Your task to perform on an android device: install app "Flipkart Online Shopping App" Image 0: 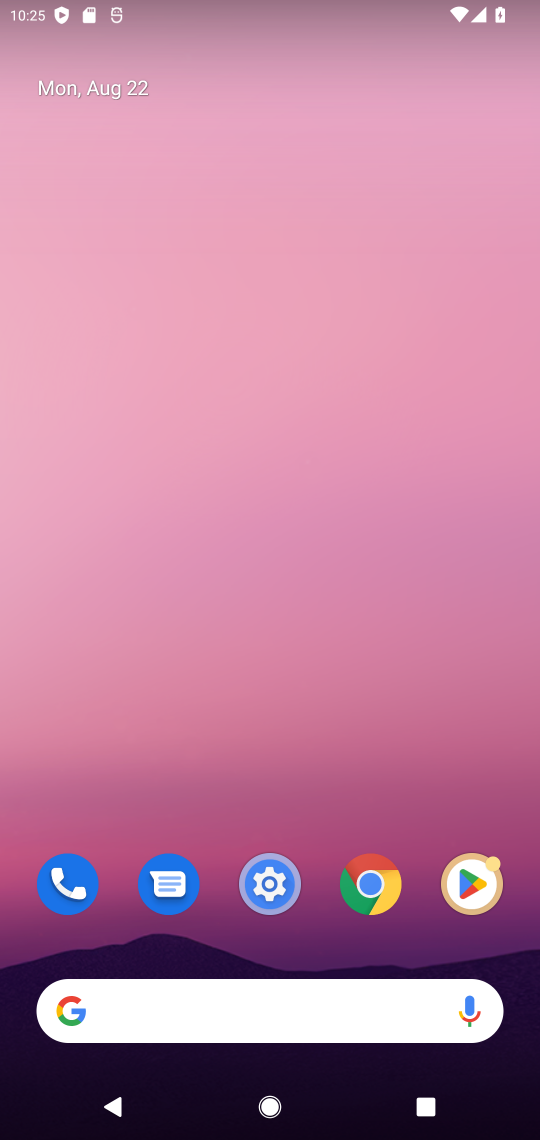
Step 0: drag from (343, 828) to (450, 0)
Your task to perform on an android device: install app "Flipkart Online Shopping App" Image 1: 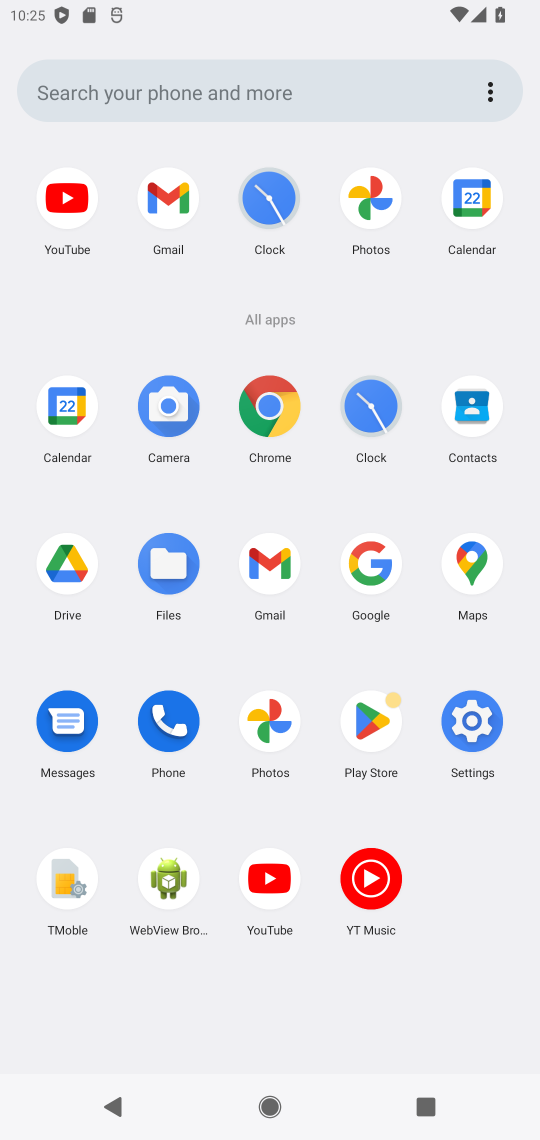
Step 1: click (375, 714)
Your task to perform on an android device: install app "Flipkart Online Shopping App" Image 2: 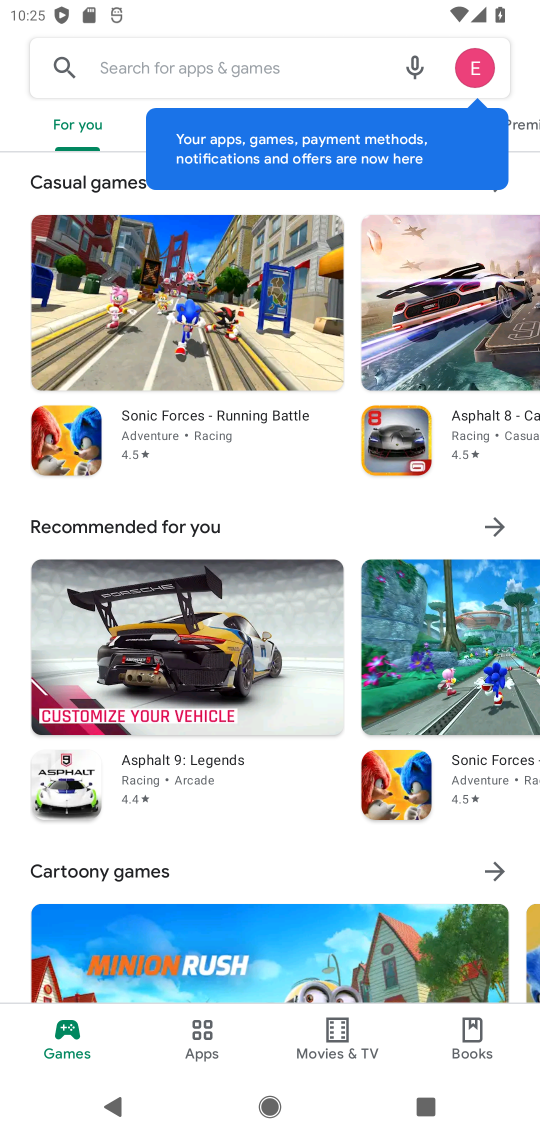
Step 2: click (196, 51)
Your task to perform on an android device: install app "Flipkart Online Shopping App" Image 3: 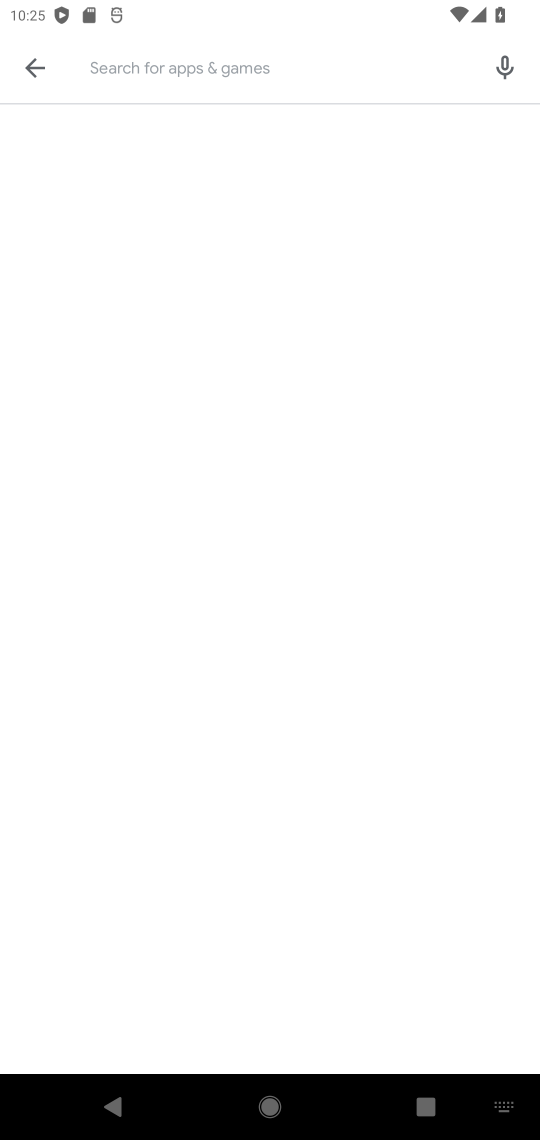
Step 3: type "Flipkart Online Shopping App"
Your task to perform on an android device: install app "Flipkart Online Shopping App" Image 4: 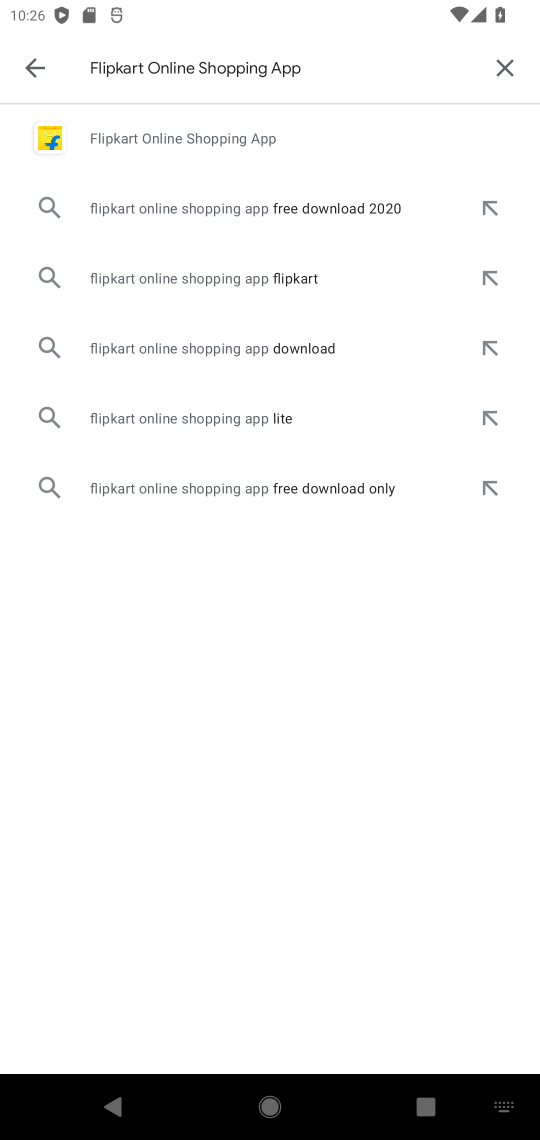
Step 4: click (120, 130)
Your task to perform on an android device: install app "Flipkart Online Shopping App" Image 5: 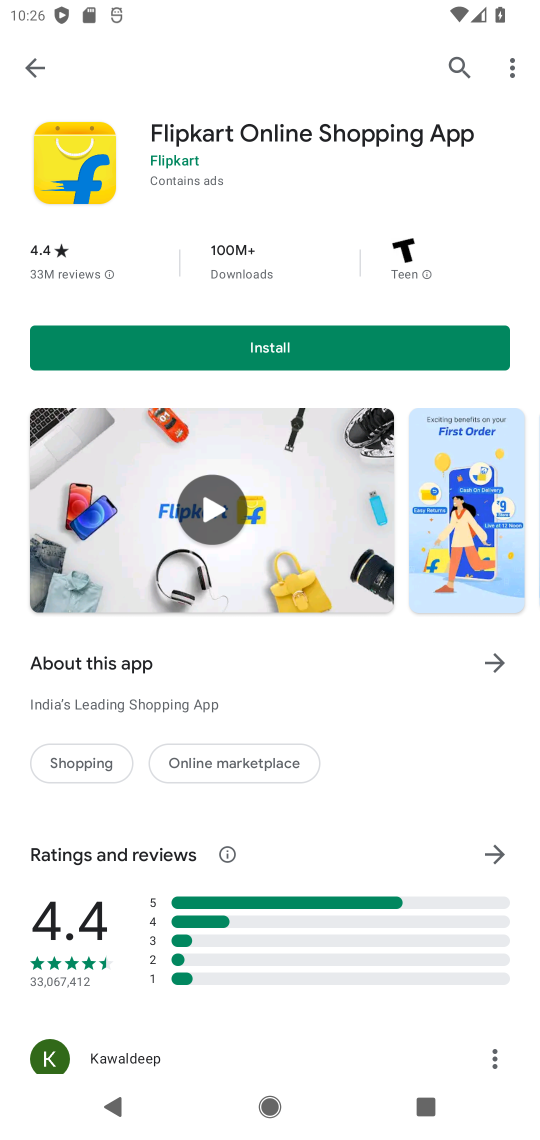
Step 5: click (279, 342)
Your task to perform on an android device: install app "Flipkart Online Shopping App" Image 6: 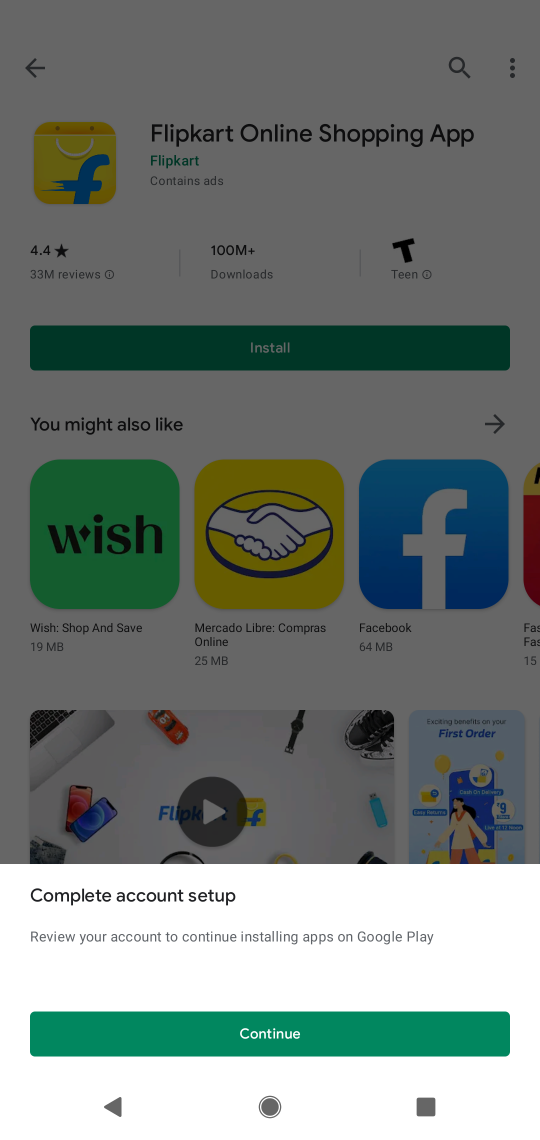
Step 6: click (255, 1026)
Your task to perform on an android device: install app "Flipkart Online Shopping App" Image 7: 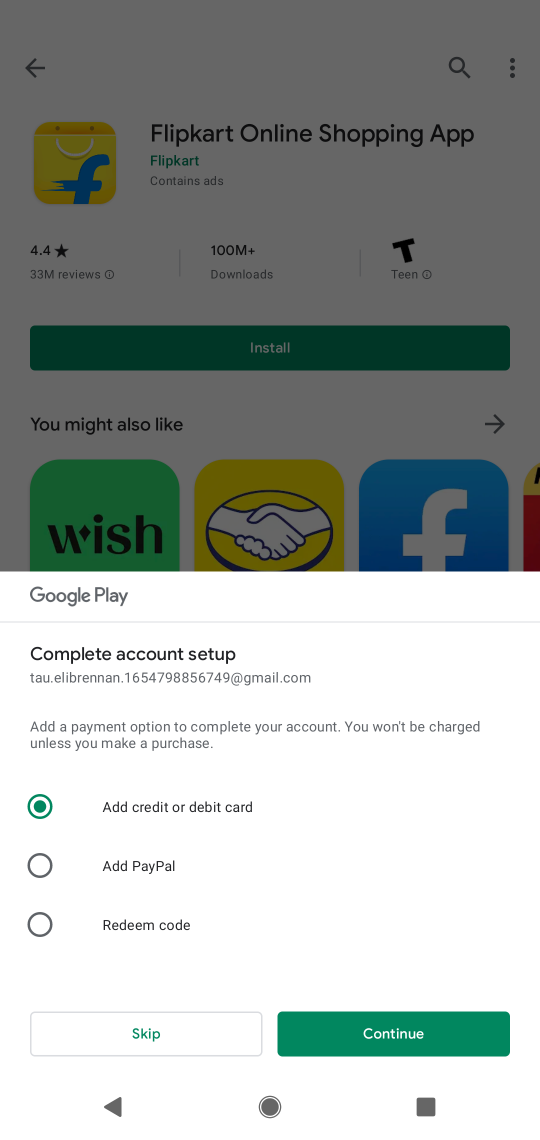
Step 7: click (156, 1032)
Your task to perform on an android device: install app "Flipkart Online Shopping App" Image 8: 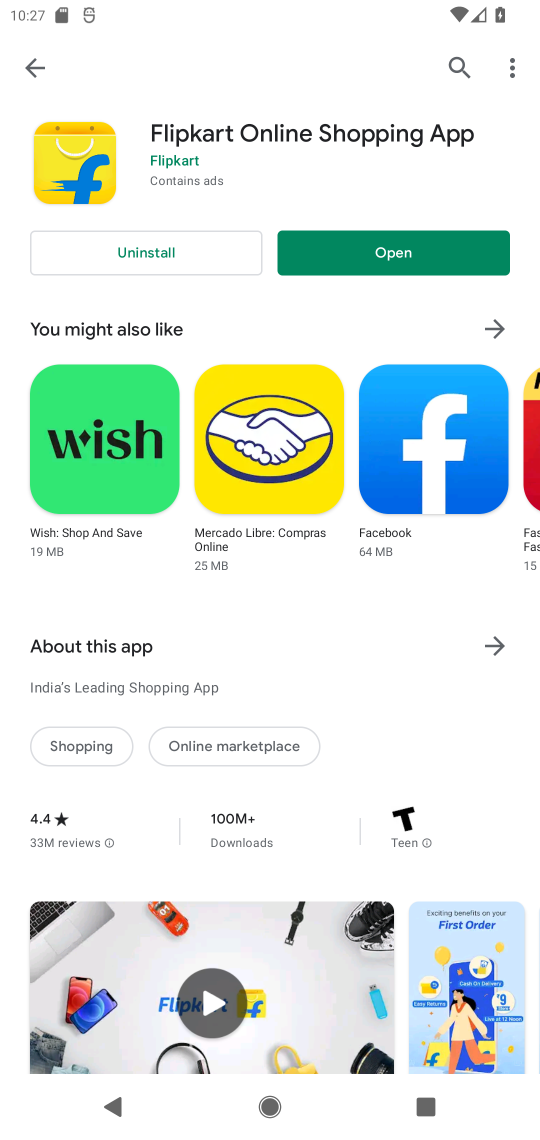
Step 8: click (379, 252)
Your task to perform on an android device: install app "Flipkart Online Shopping App" Image 9: 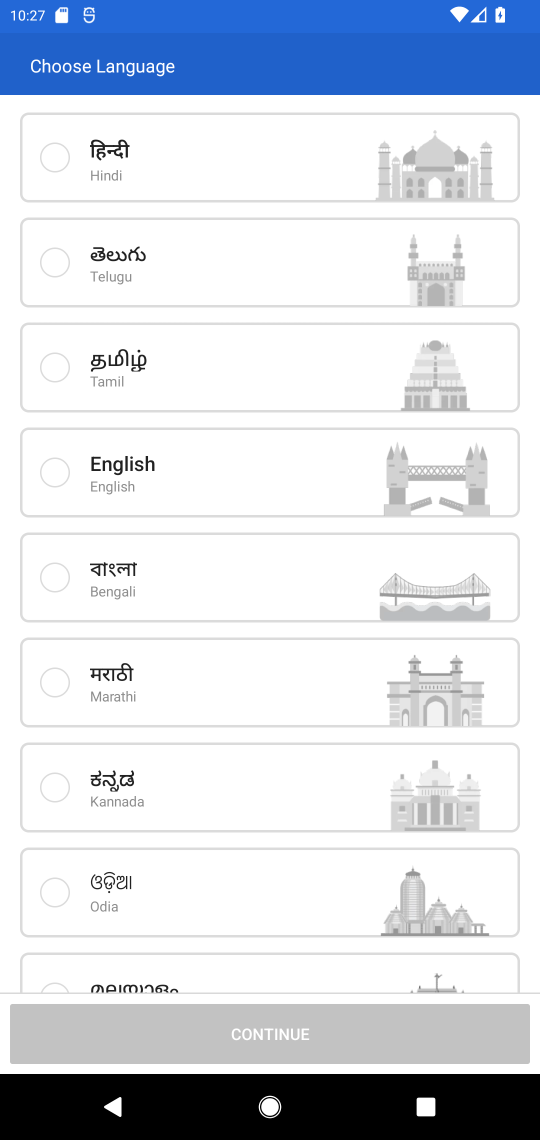
Step 9: click (50, 473)
Your task to perform on an android device: install app "Flipkart Online Shopping App" Image 10: 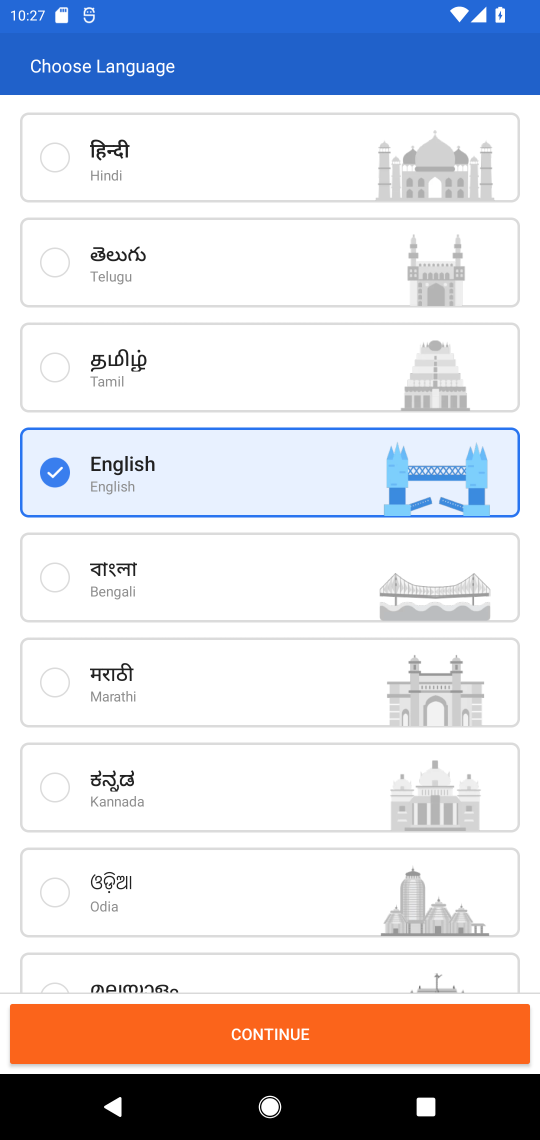
Step 10: click (272, 1026)
Your task to perform on an android device: install app "Flipkart Online Shopping App" Image 11: 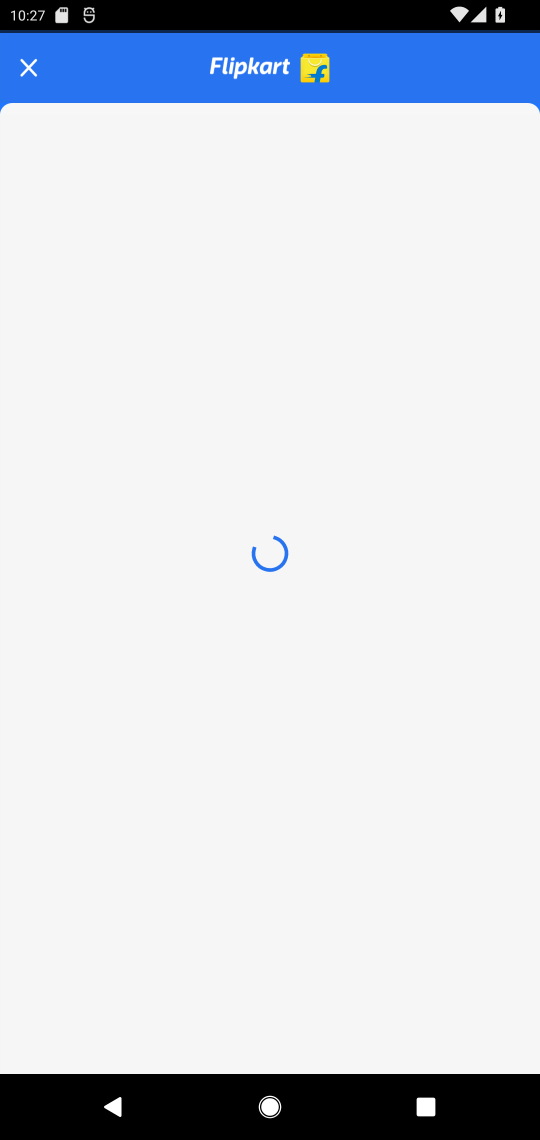
Step 11: task complete